Your task to perform on an android device: open app "DoorDash - Food Delivery" (install if not already installed), go to login, and select forgot password Image 0: 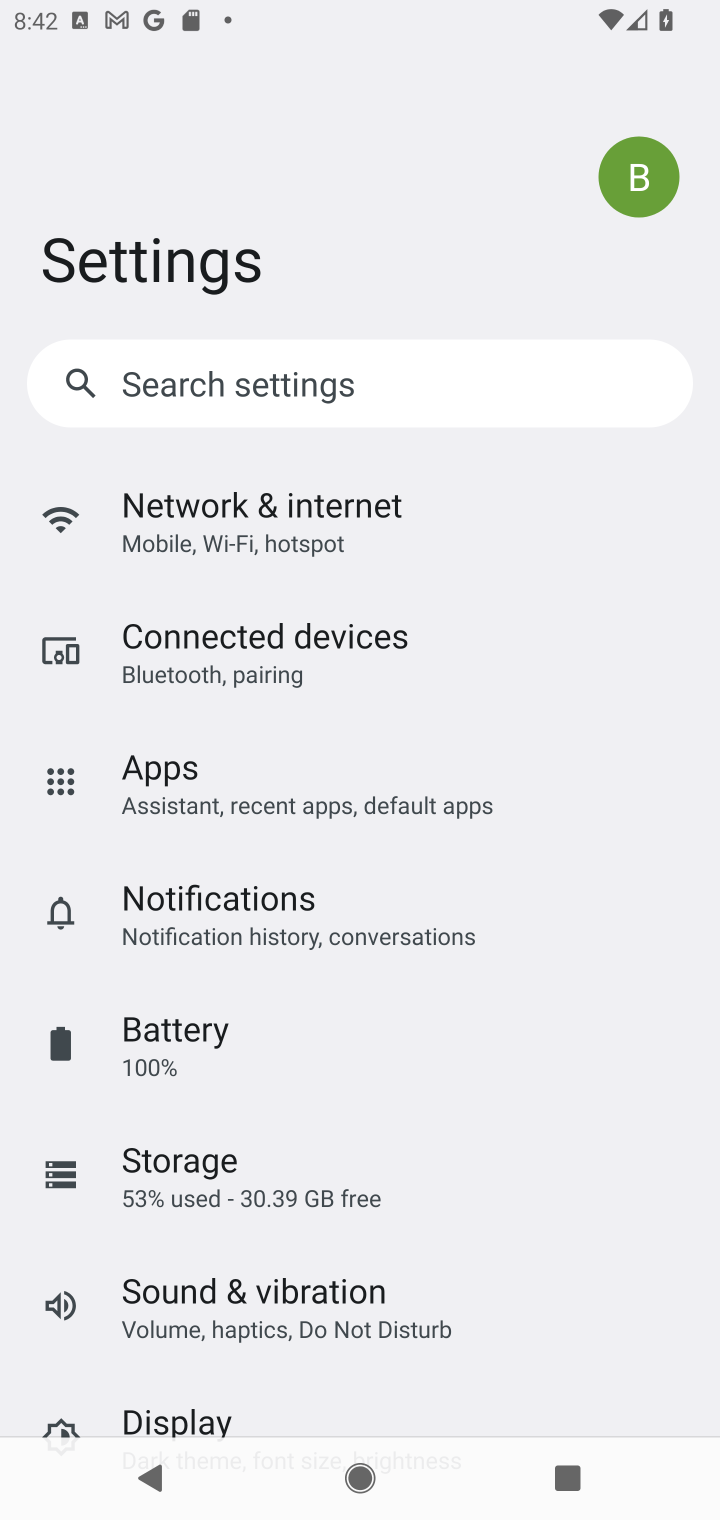
Step 0: press home button
Your task to perform on an android device: open app "DoorDash - Food Delivery" (install if not already installed), go to login, and select forgot password Image 1: 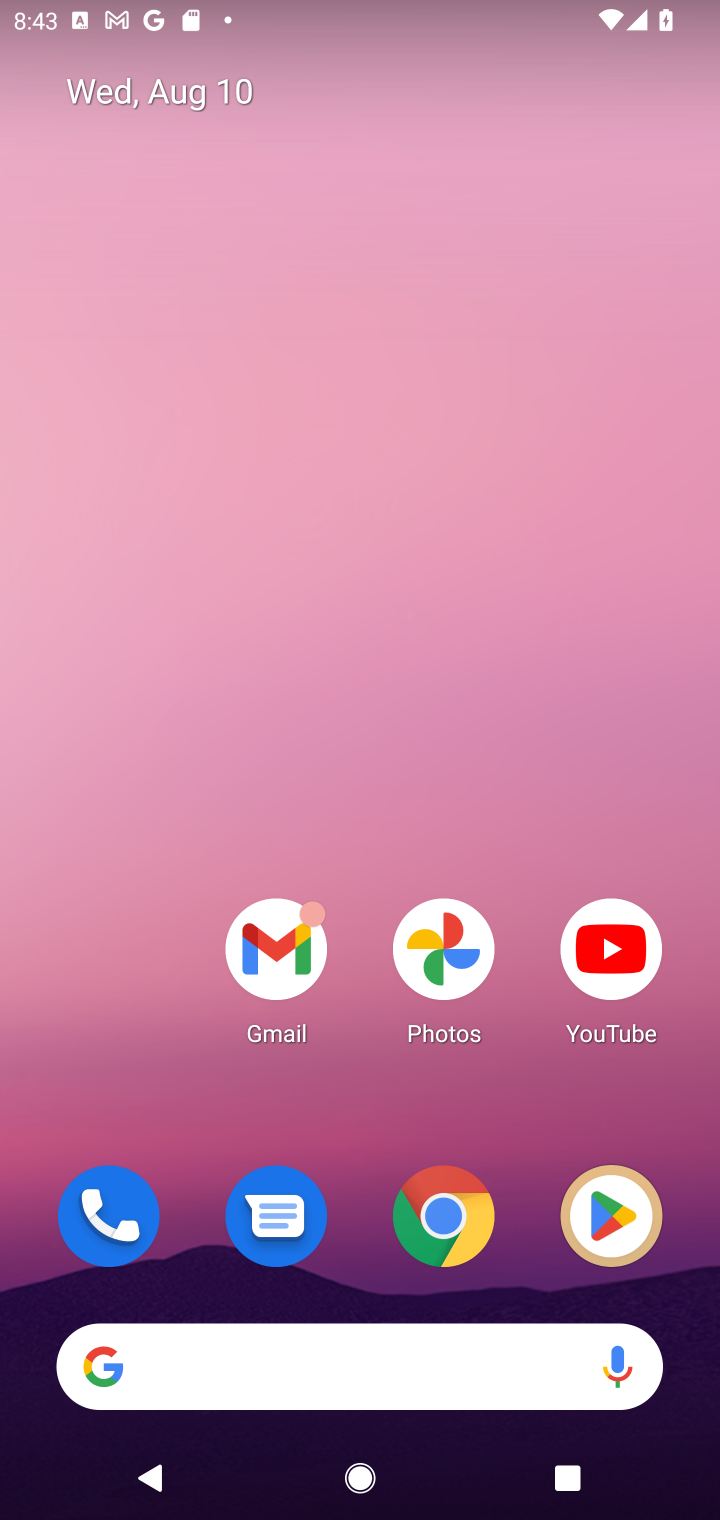
Step 1: click (605, 1221)
Your task to perform on an android device: open app "DoorDash - Food Delivery" (install if not already installed), go to login, and select forgot password Image 2: 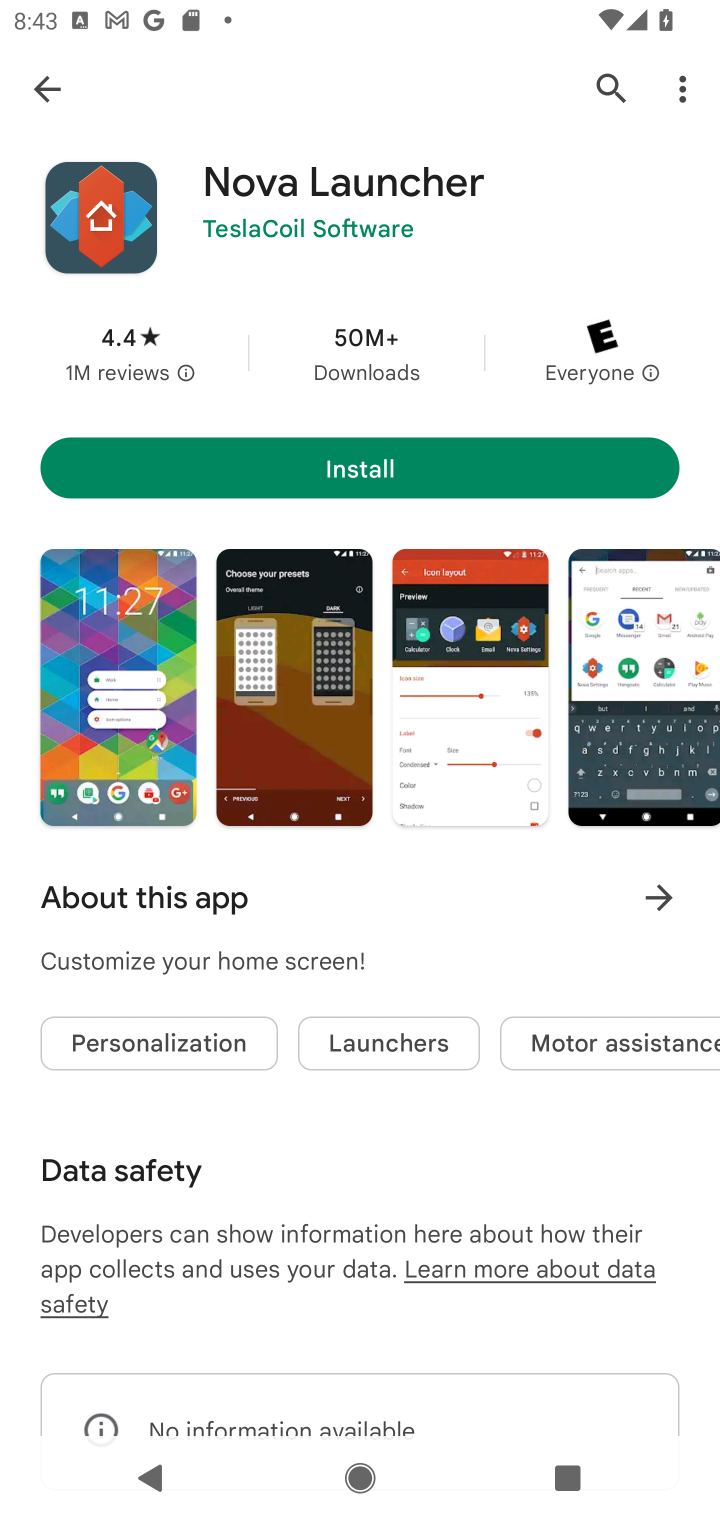
Step 2: click (611, 77)
Your task to perform on an android device: open app "DoorDash - Food Delivery" (install if not already installed), go to login, and select forgot password Image 3: 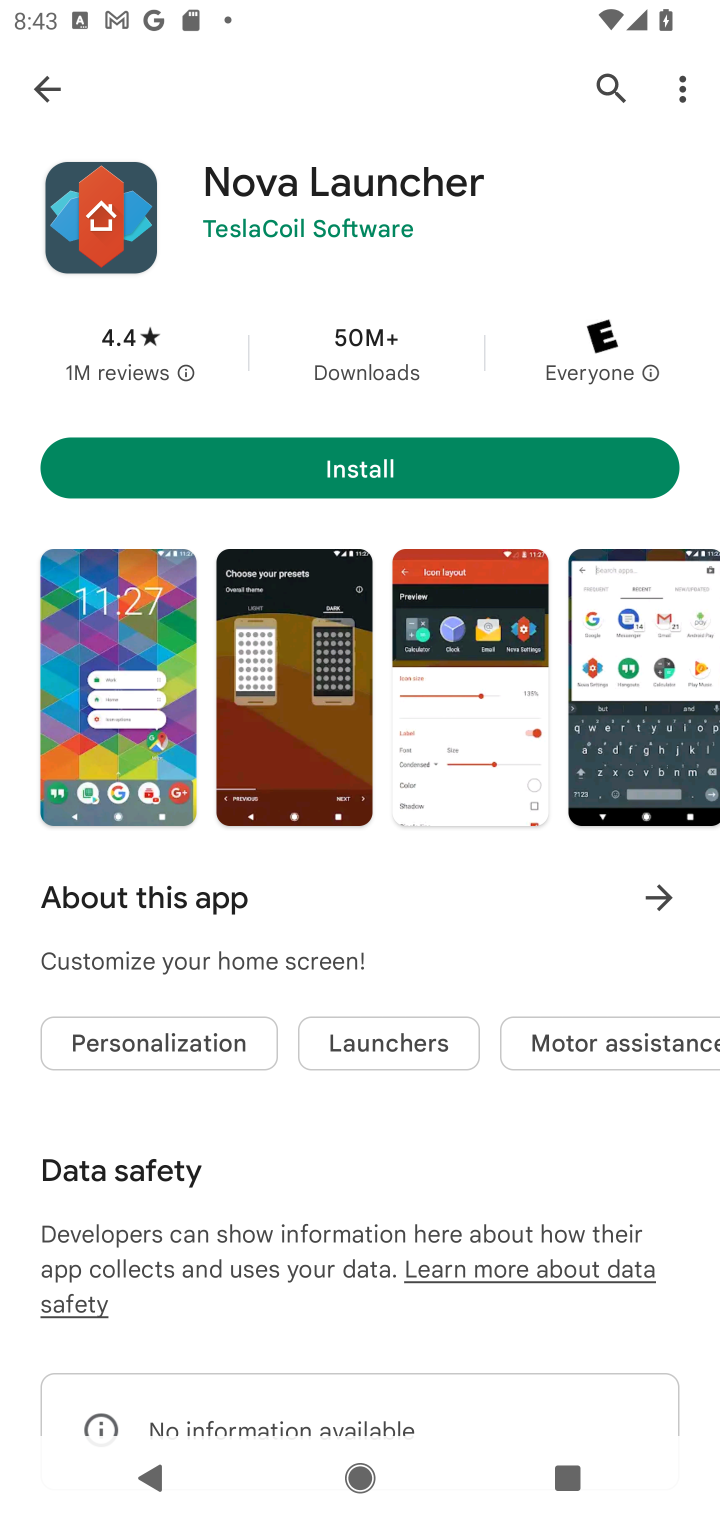
Step 3: click (603, 78)
Your task to perform on an android device: open app "DoorDash - Food Delivery" (install if not already installed), go to login, and select forgot password Image 4: 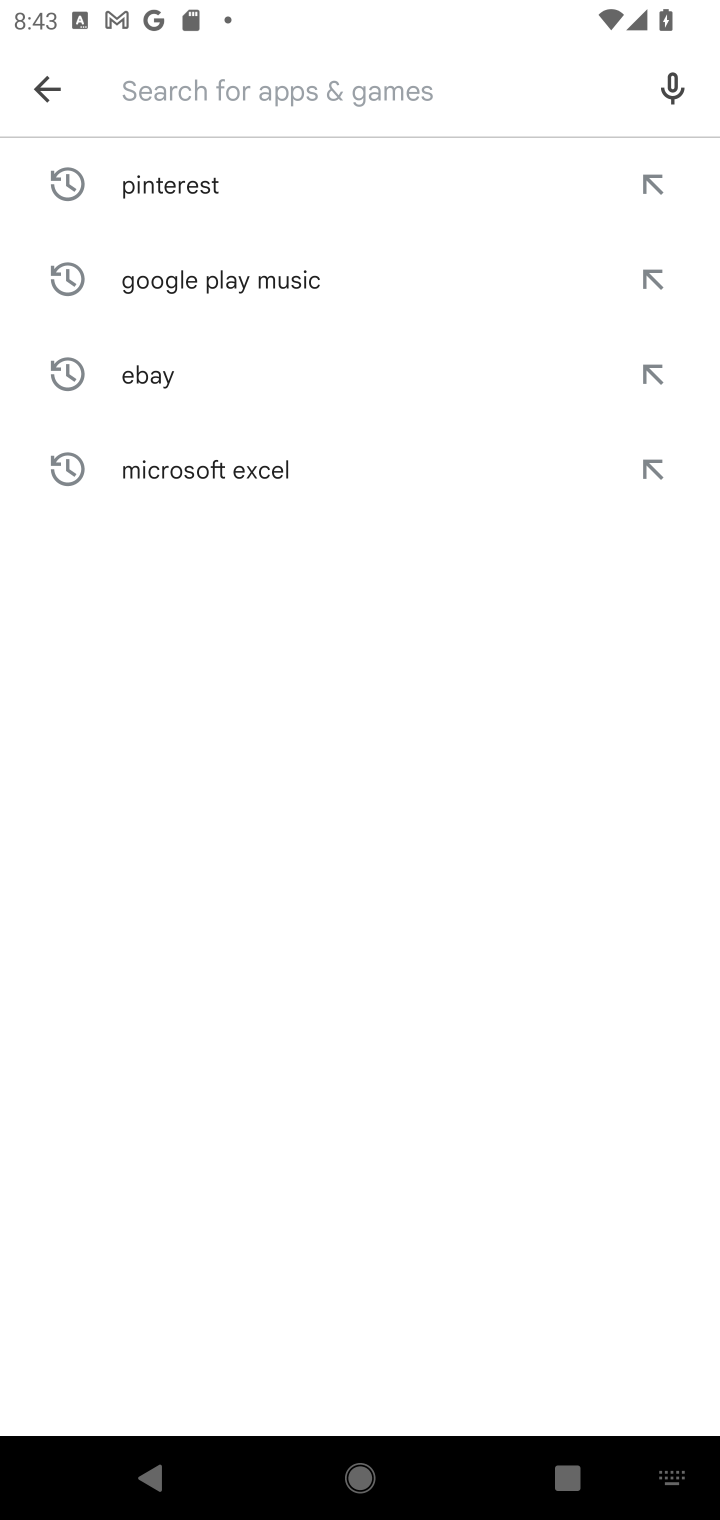
Step 4: click (187, 100)
Your task to perform on an android device: open app "DoorDash - Food Delivery" (install if not already installed), go to login, and select forgot password Image 5: 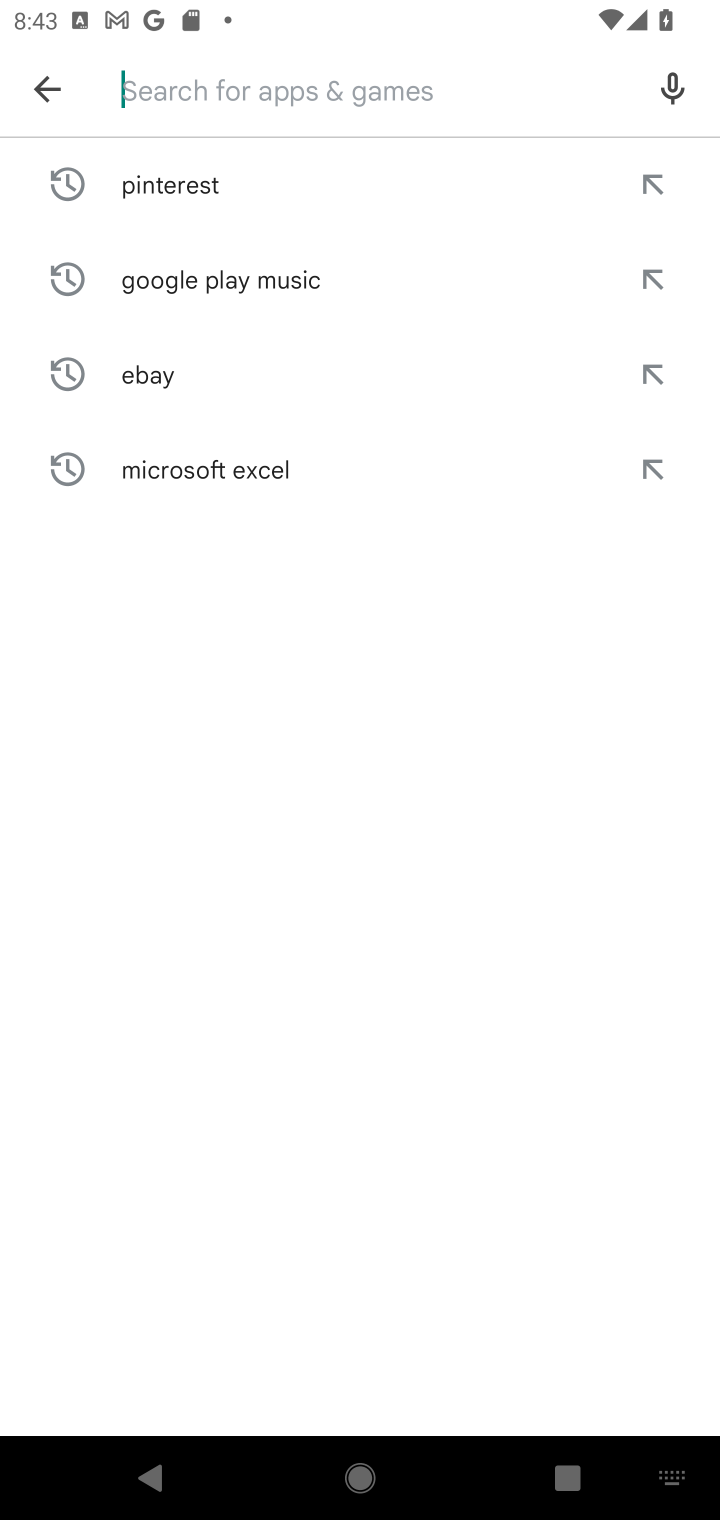
Step 5: type "DoorDash"
Your task to perform on an android device: open app "DoorDash - Food Delivery" (install if not already installed), go to login, and select forgot password Image 6: 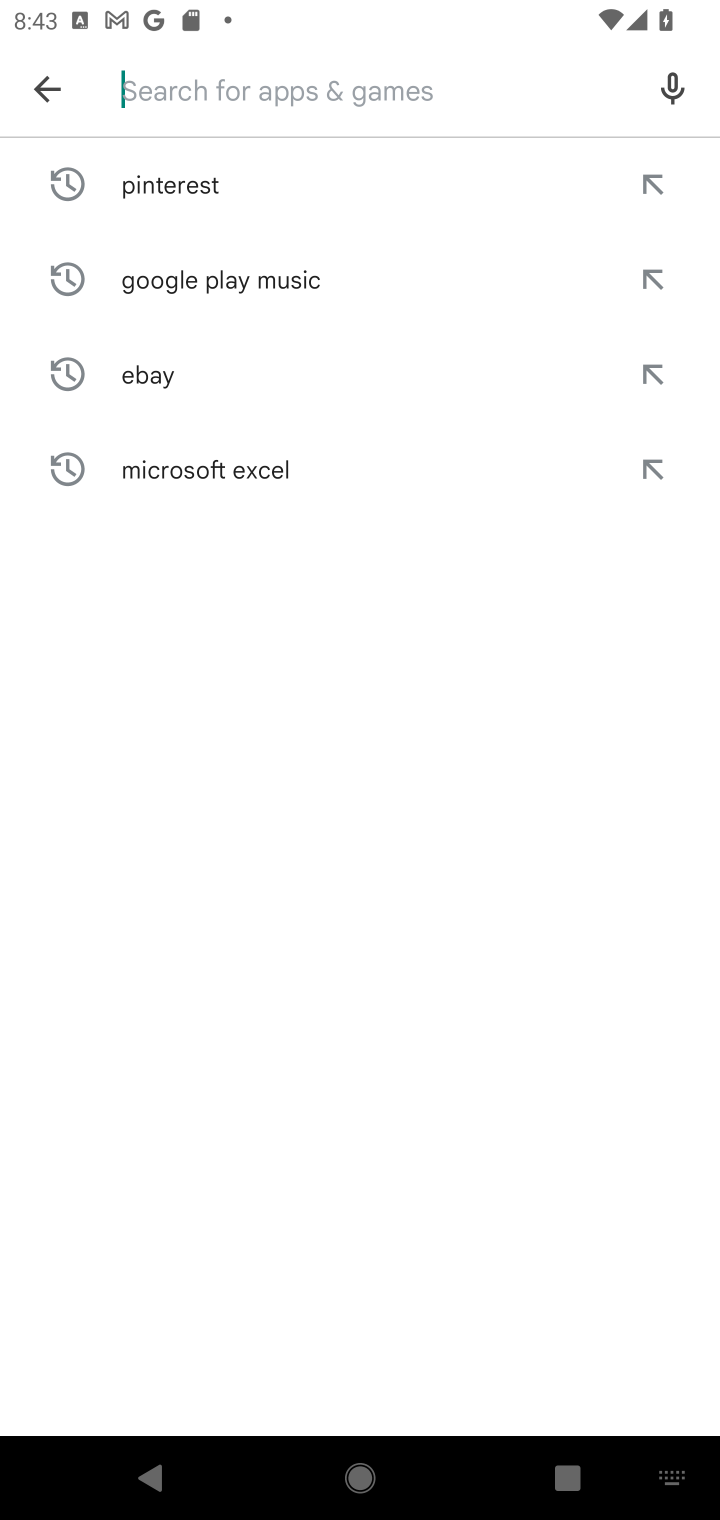
Step 6: click (101, 934)
Your task to perform on an android device: open app "DoorDash - Food Delivery" (install if not already installed), go to login, and select forgot password Image 7: 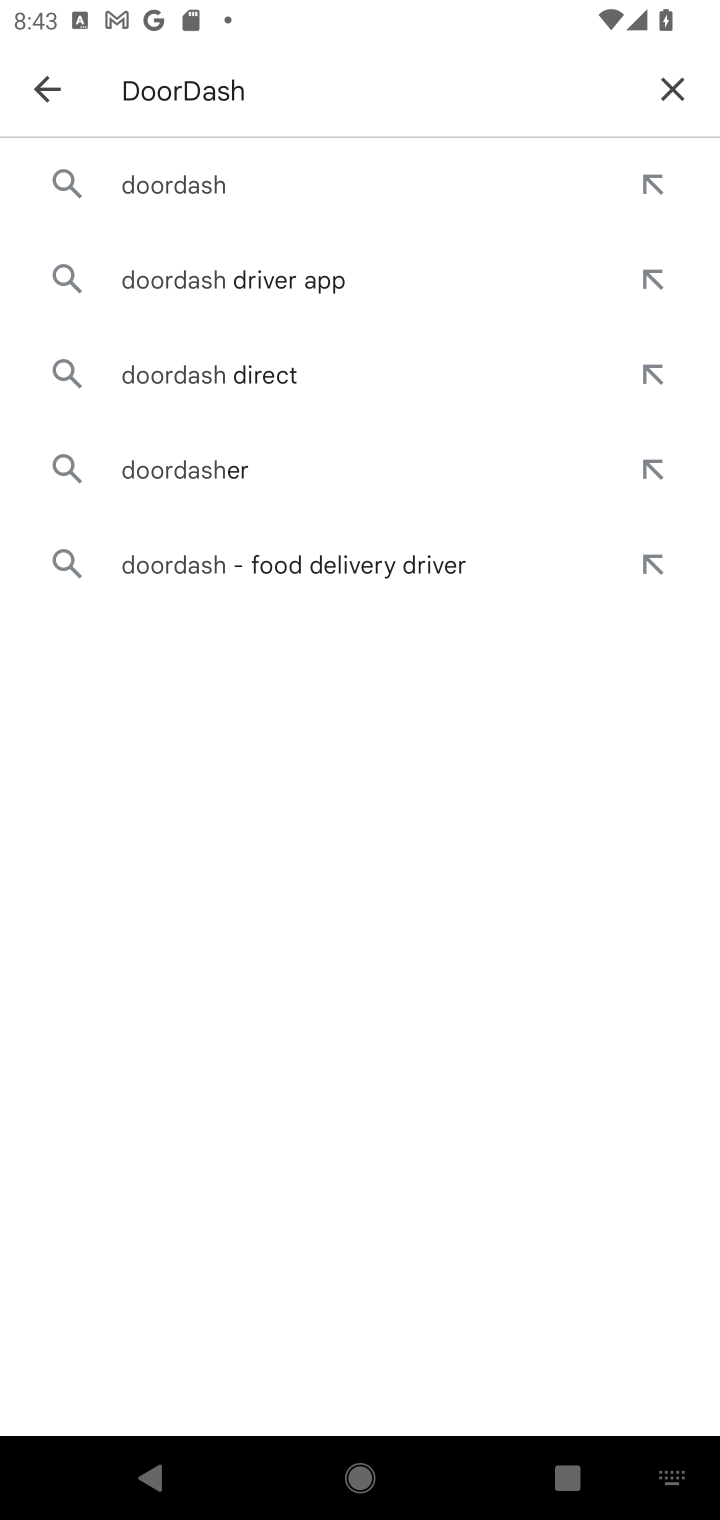
Step 7: click (175, 175)
Your task to perform on an android device: open app "DoorDash - Food Delivery" (install if not already installed), go to login, and select forgot password Image 8: 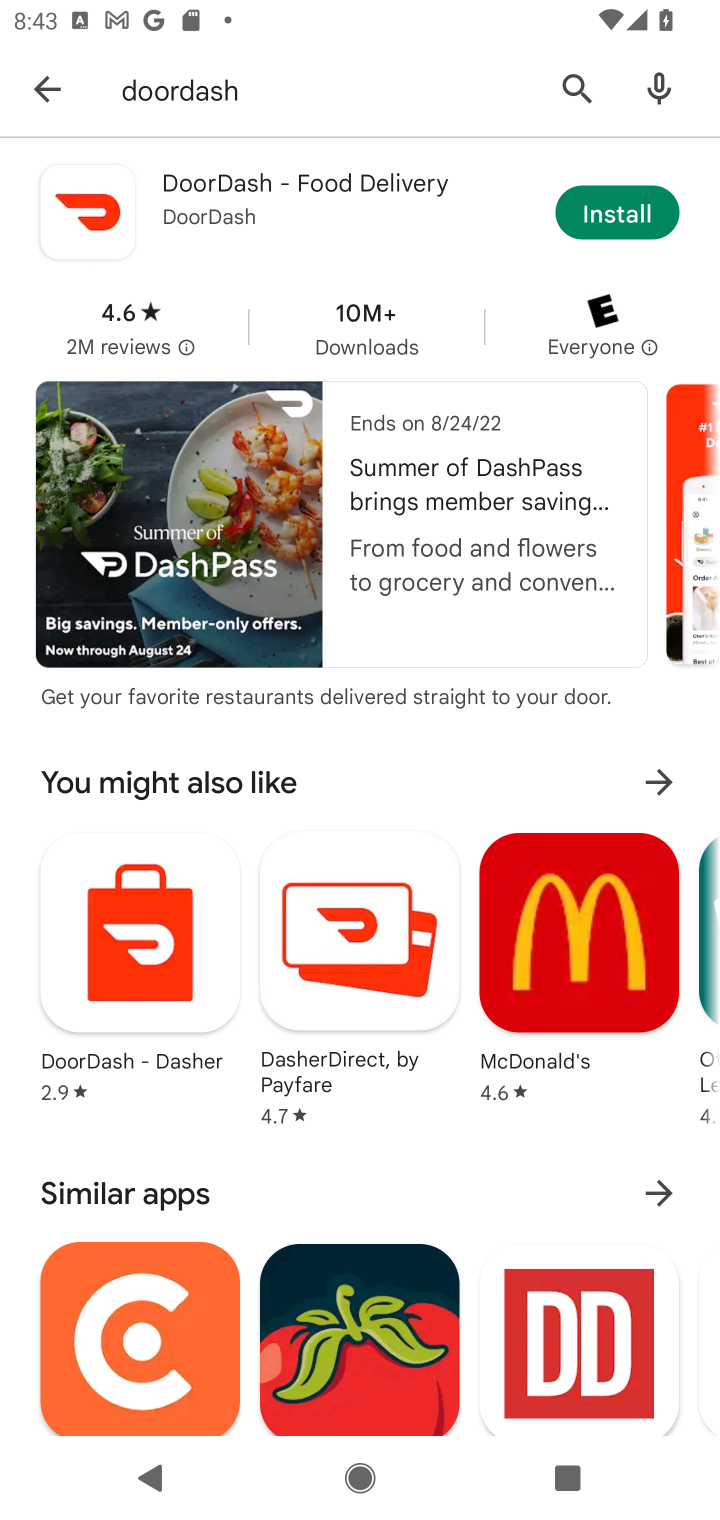
Step 8: click (153, 953)
Your task to perform on an android device: open app "DoorDash - Food Delivery" (install if not already installed), go to login, and select forgot password Image 9: 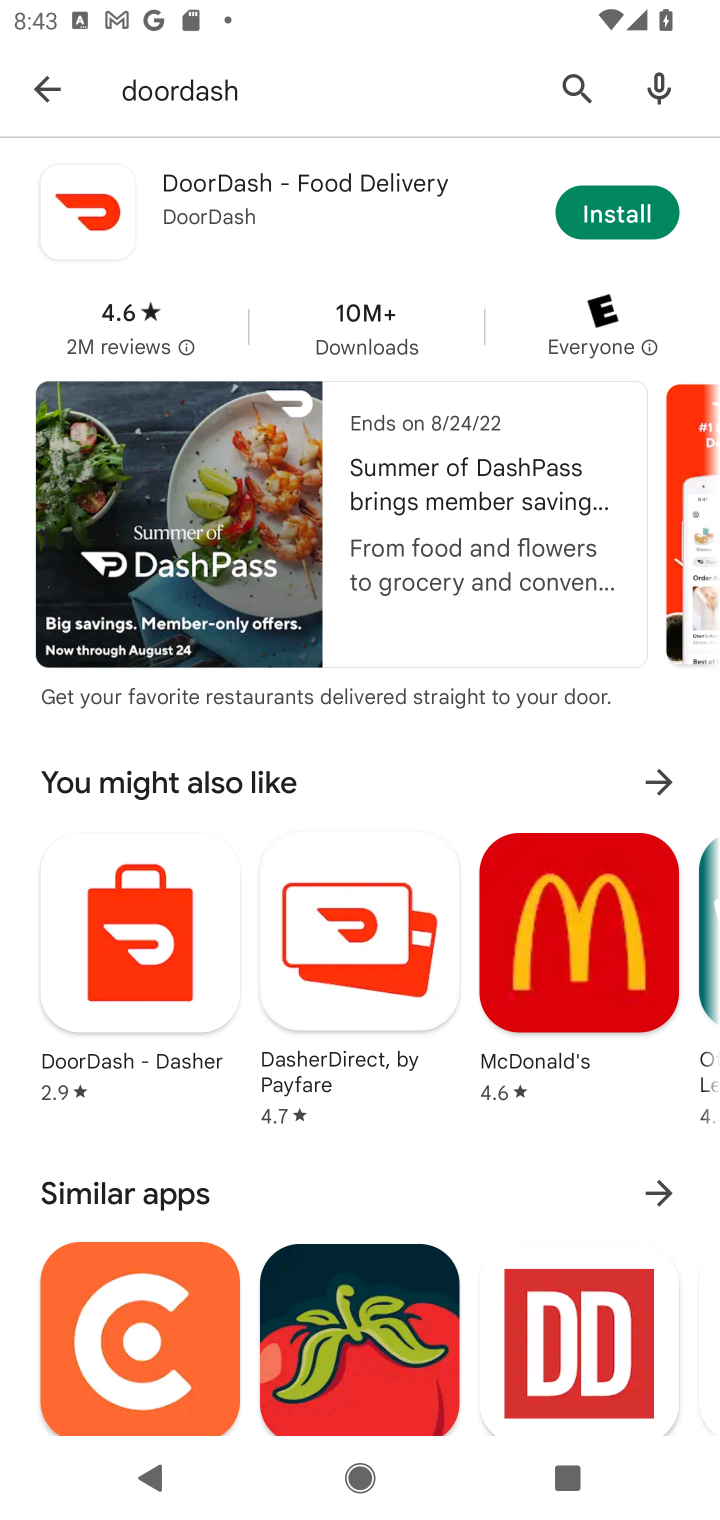
Step 9: click (127, 946)
Your task to perform on an android device: open app "DoorDash - Food Delivery" (install if not already installed), go to login, and select forgot password Image 10: 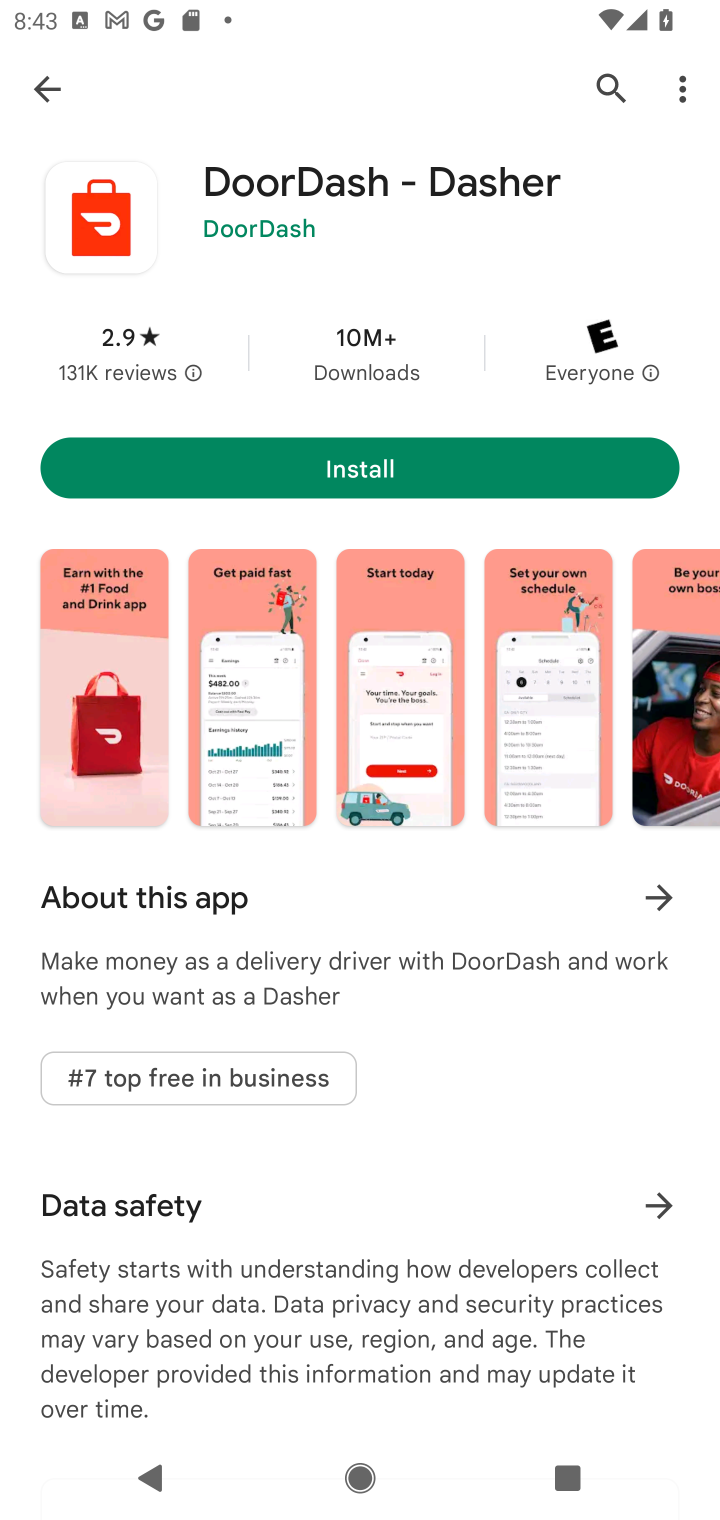
Step 10: click (363, 473)
Your task to perform on an android device: open app "DoorDash - Food Delivery" (install if not already installed), go to login, and select forgot password Image 11: 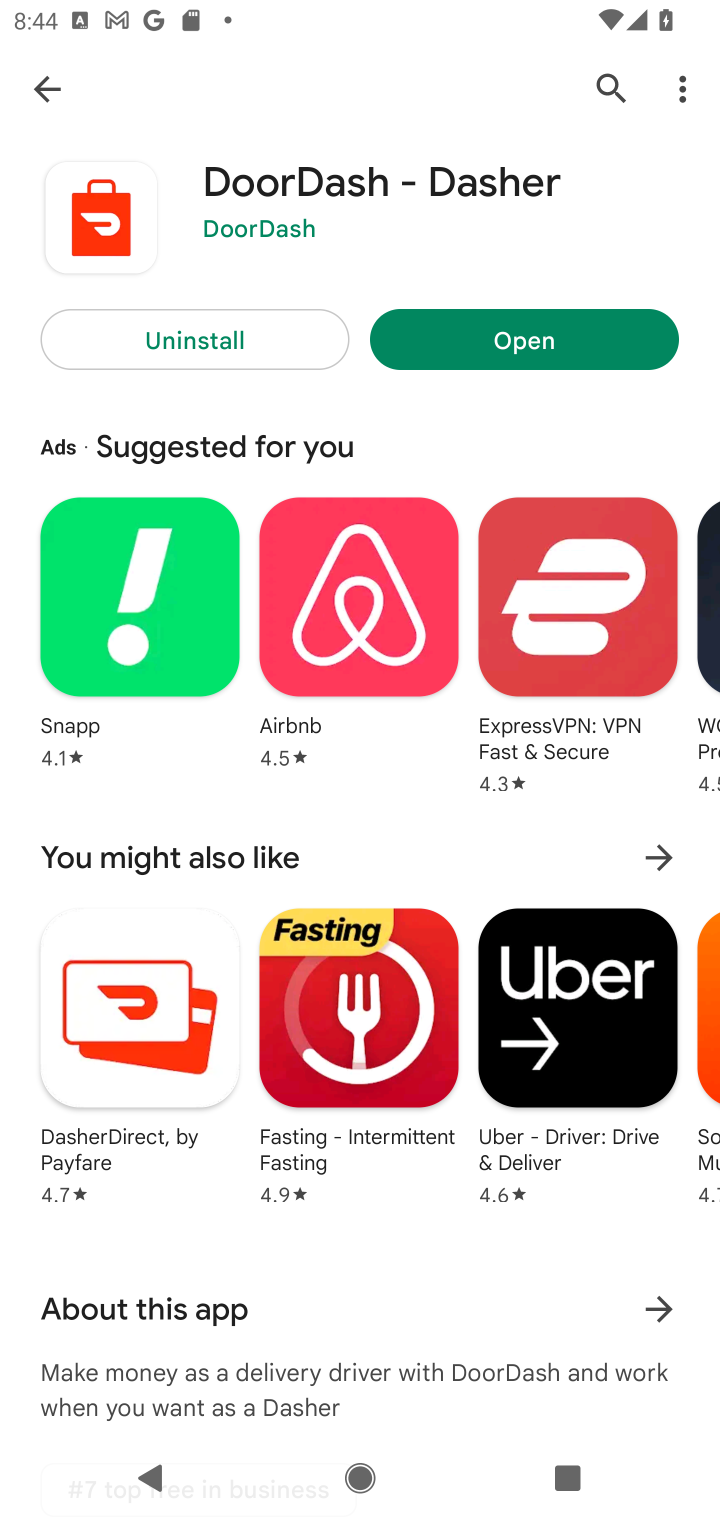
Step 11: click (498, 339)
Your task to perform on an android device: open app "DoorDash - Food Delivery" (install if not already installed), go to login, and select forgot password Image 12: 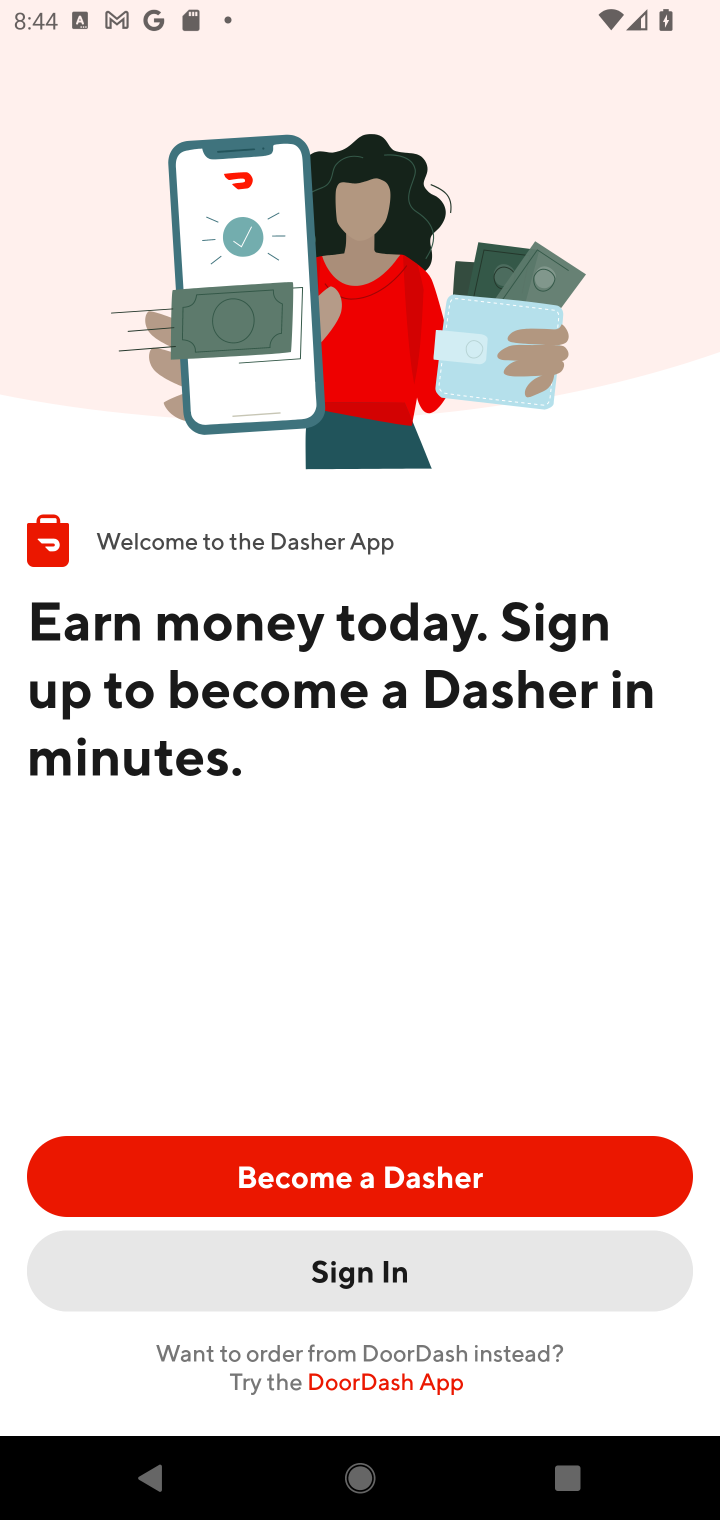
Step 12: click (290, 1274)
Your task to perform on an android device: open app "DoorDash - Food Delivery" (install if not already installed), go to login, and select forgot password Image 13: 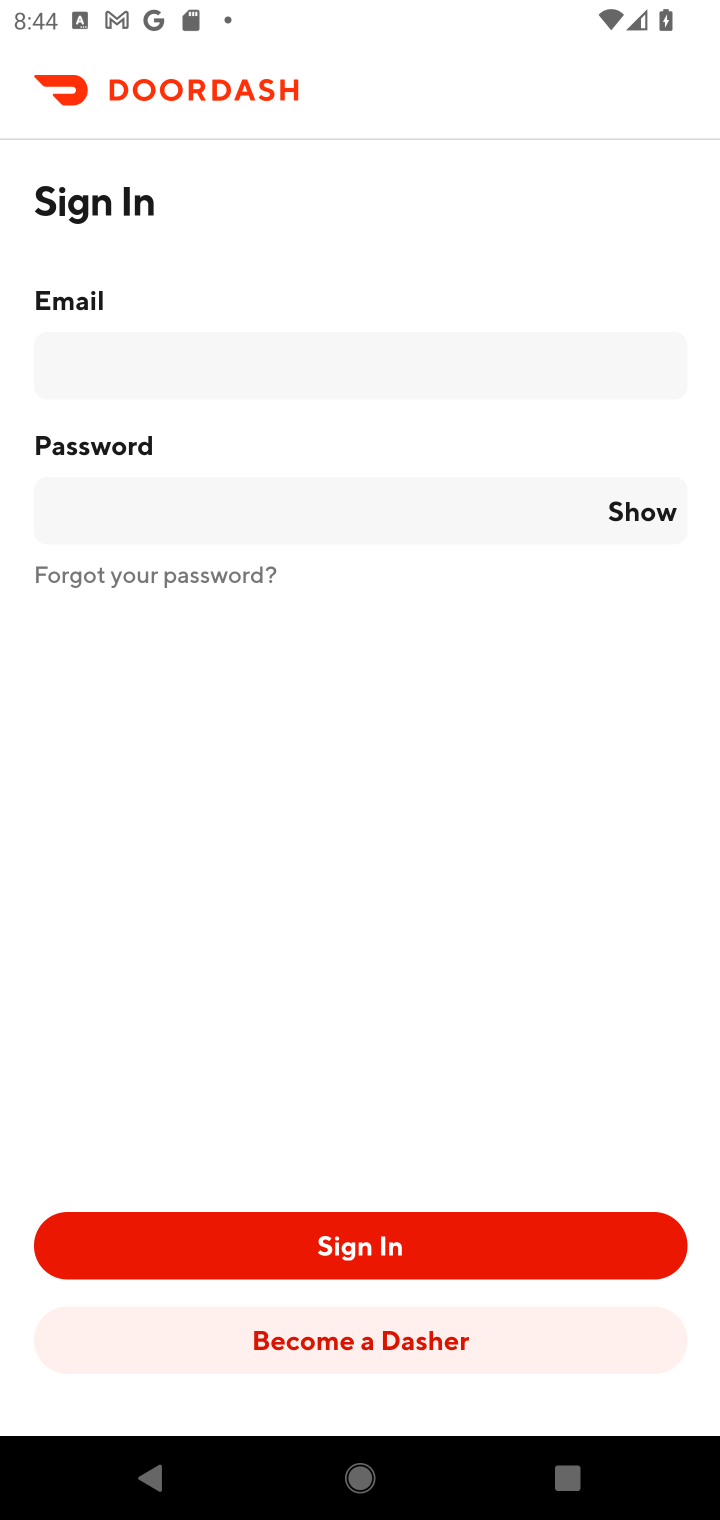
Step 13: click (167, 570)
Your task to perform on an android device: open app "DoorDash - Food Delivery" (install if not already installed), go to login, and select forgot password Image 14: 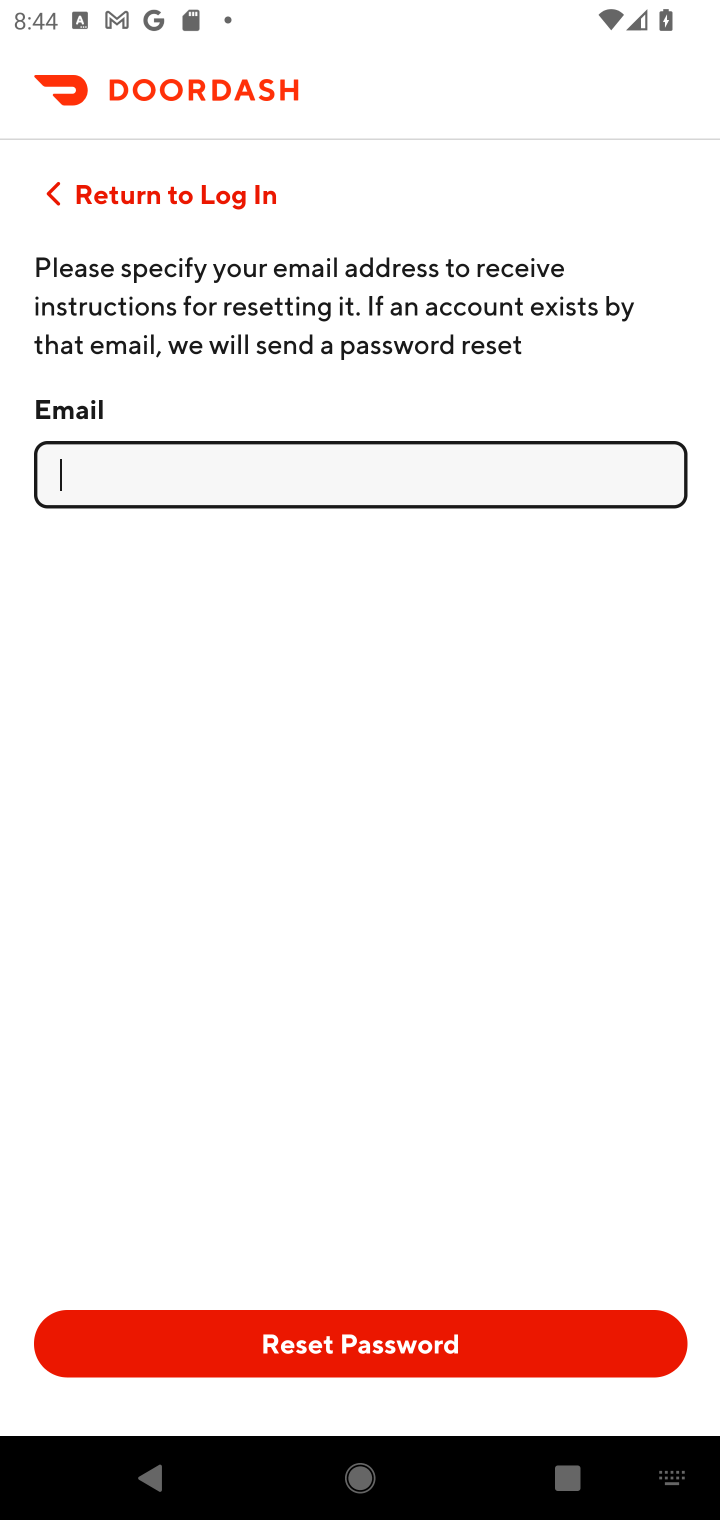
Step 14: task complete